Your task to perform on an android device: Toggle the flashlight Image 0: 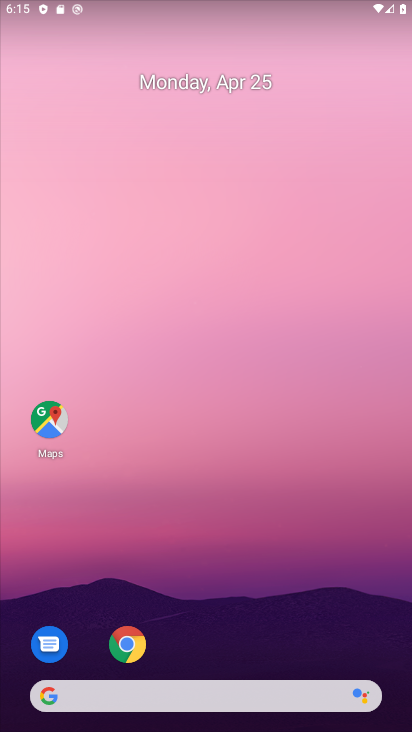
Step 0: drag from (231, 491) to (272, 119)
Your task to perform on an android device: Toggle the flashlight Image 1: 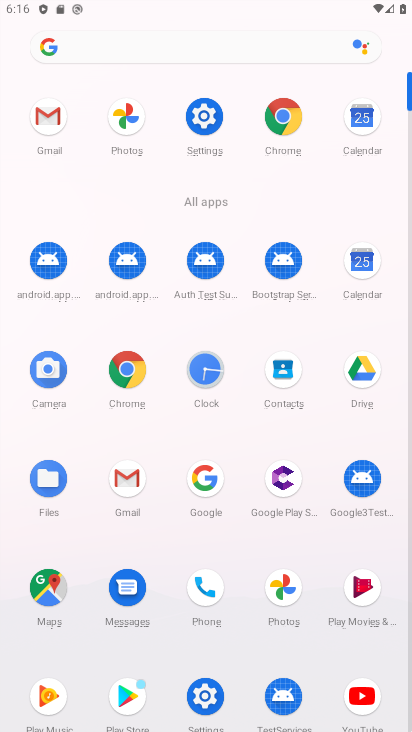
Step 1: click (209, 691)
Your task to perform on an android device: Toggle the flashlight Image 2: 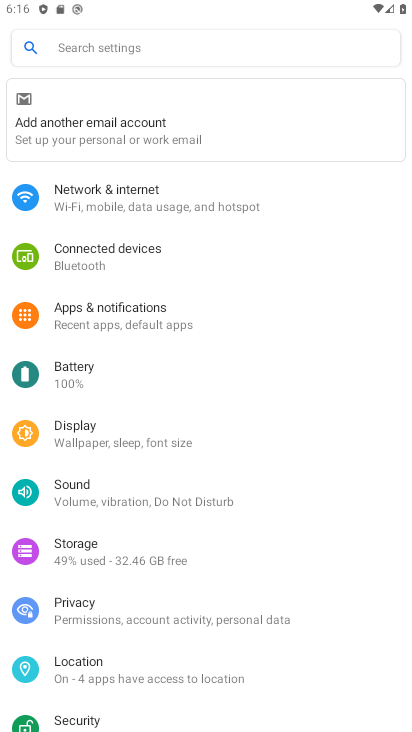
Step 2: drag from (263, 649) to (293, 278)
Your task to perform on an android device: Toggle the flashlight Image 3: 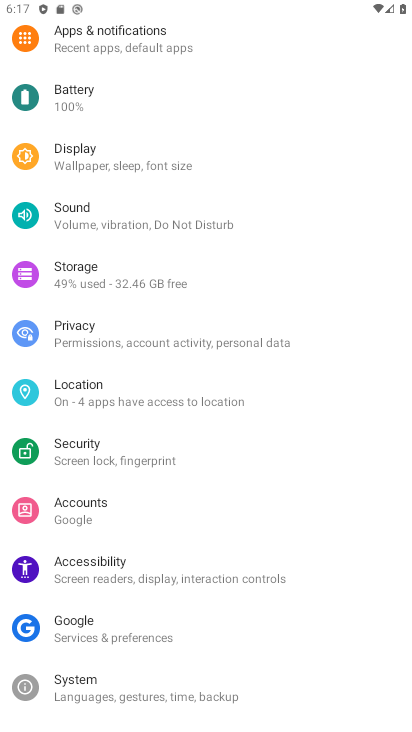
Step 3: drag from (324, 218) to (293, 526)
Your task to perform on an android device: Toggle the flashlight Image 4: 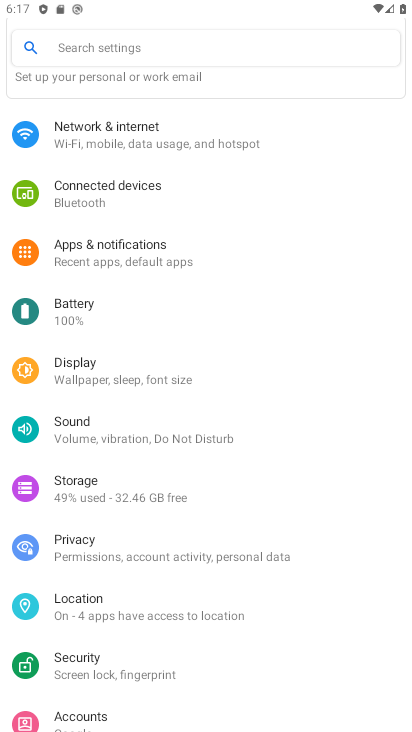
Step 4: click (140, 258)
Your task to perform on an android device: Toggle the flashlight Image 5: 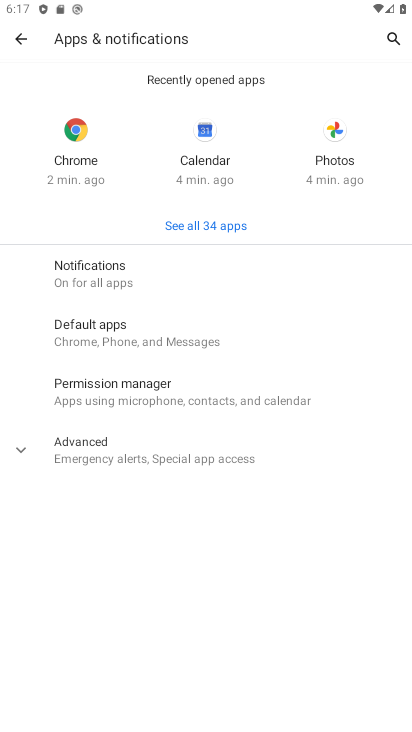
Step 5: click (198, 223)
Your task to perform on an android device: Toggle the flashlight Image 6: 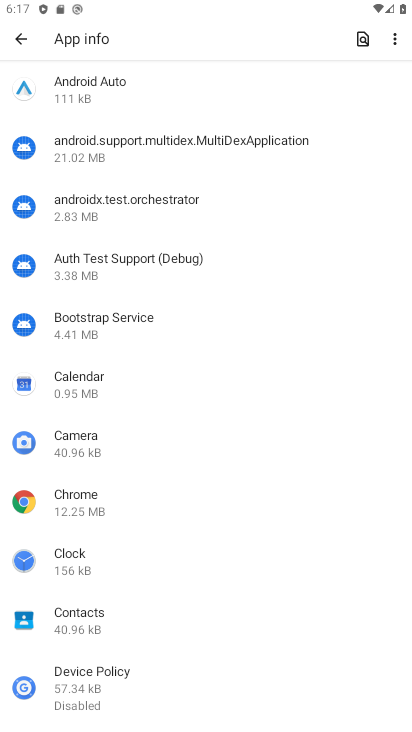
Step 6: task complete